Your task to perform on an android device: make emails show in primary in the gmail app Image 0: 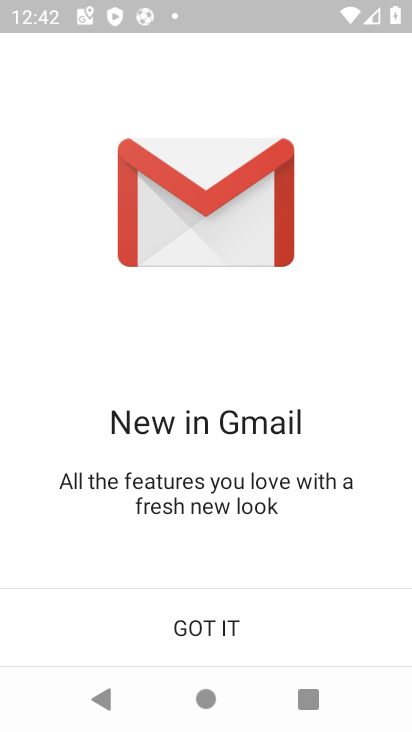
Step 0: press home button
Your task to perform on an android device: make emails show in primary in the gmail app Image 1: 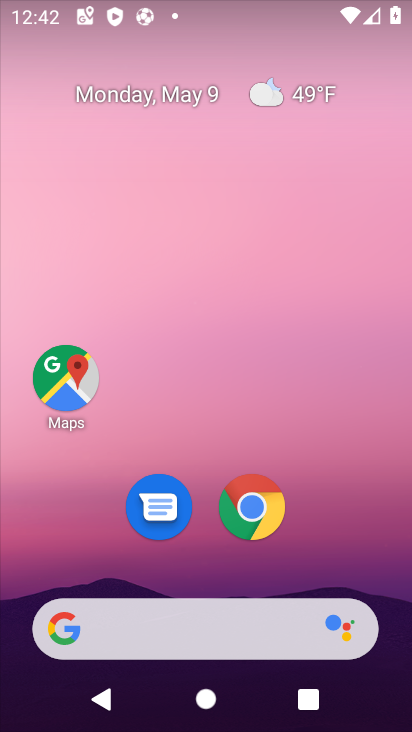
Step 1: drag from (170, 596) to (205, 232)
Your task to perform on an android device: make emails show in primary in the gmail app Image 2: 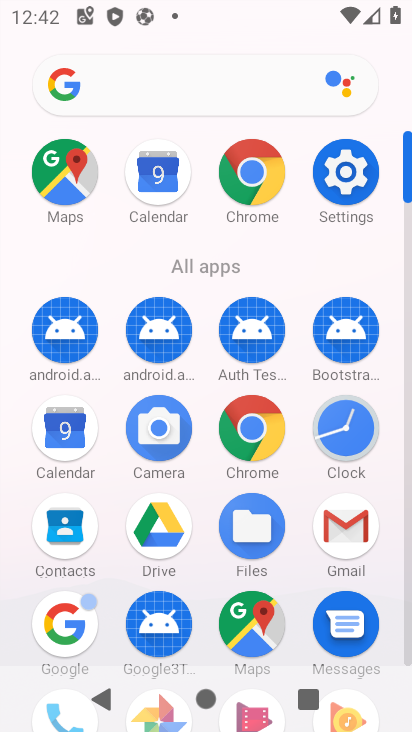
Step 2: click (353, 528)
Your task to perform on an android device: make emails show in primary in the gmail app Image 3: 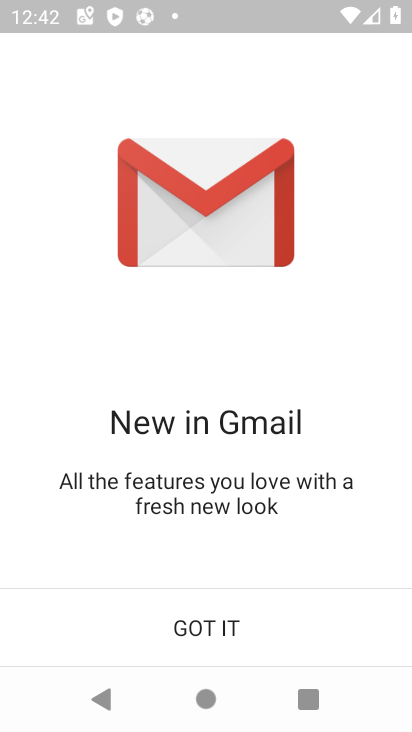
Step 3: click (245, 630)
Your task to perform on an android device: make emails show in primary in the gmail app Image 4: 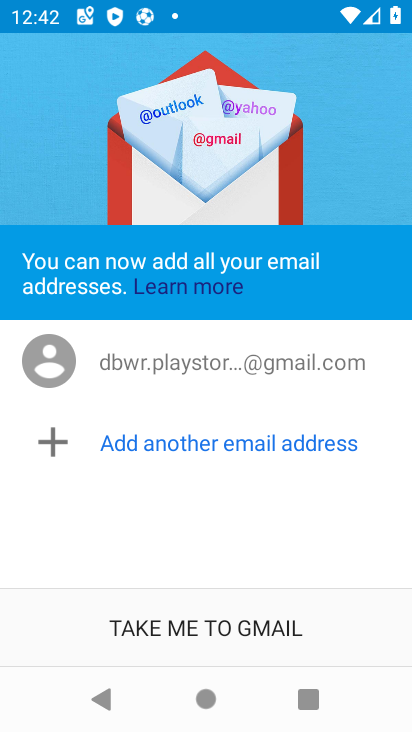
Step 4: click (245, 630)
Your task to perform on an android device: make emails show in primary in the gmail app Image 5: 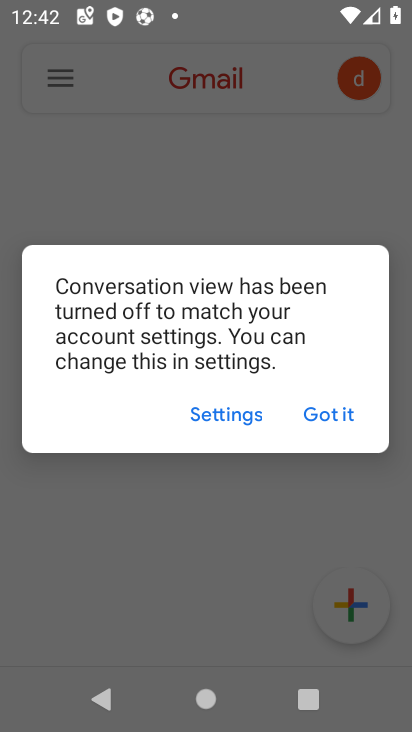
Step 5: click (337, 416)
Your task to perform on an android device: make emails show in primary in the gmail app Image 6: 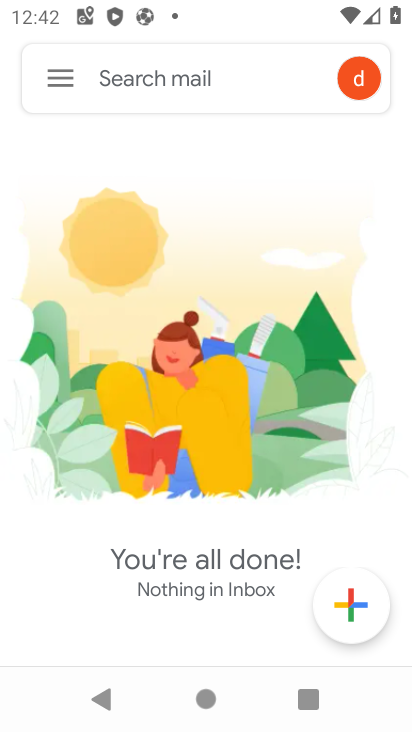
Step 6: click (50, 81)
Your task to perform on an android device: make emails show in primary in the gmail app Image 7: 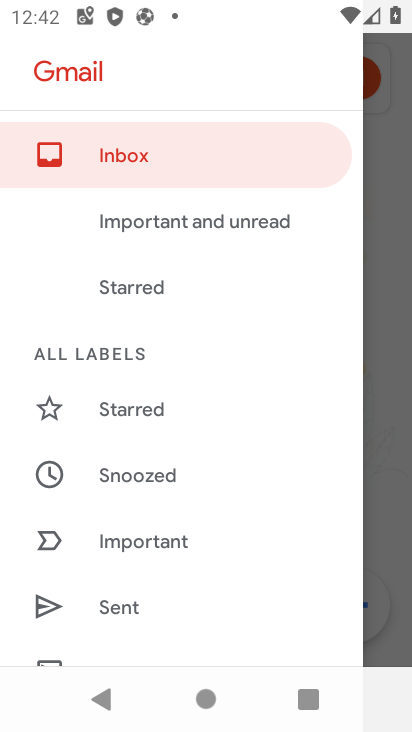
Step 7: drag from (145, 612) to (176, 265)
Your task to perform on an android device: make emails show in primary in the gmail app Image 8: 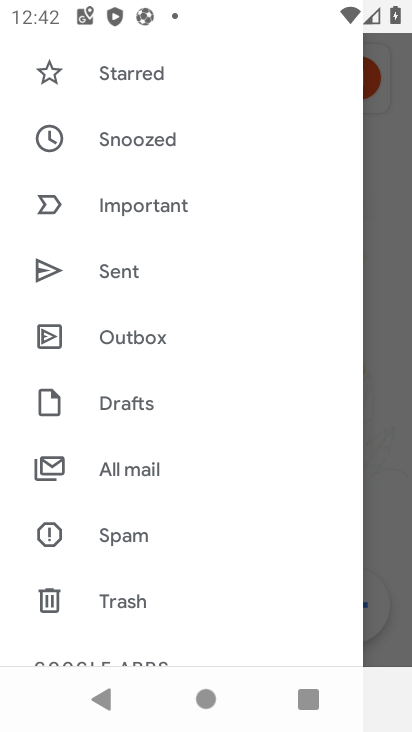
Step 8: drag from (136, 652) to (143, 314)
Your task to perform on an android device: make emails show in primary in the gmail app Image 9: 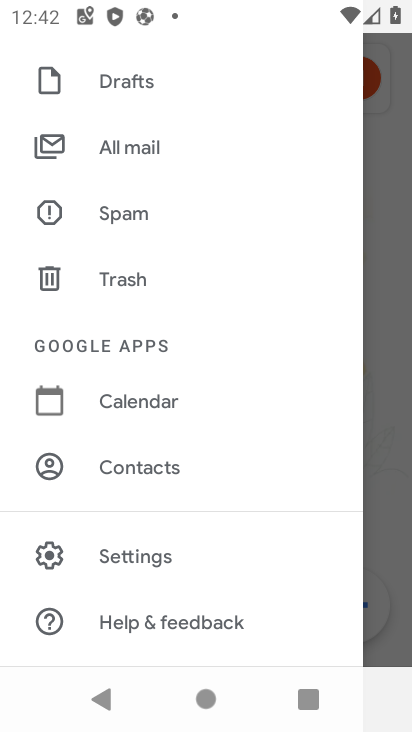
Step 9: click (143, 556)
Your task to perform on an android device: make emails show in primary in the gmail app Image 10: 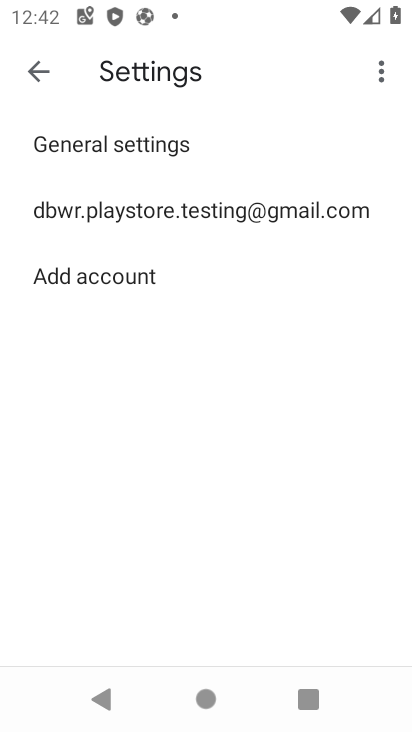
Step 10: click (113, 214)
Your task to perform on an android device: make emails show in primary in the gmail app Image 11: 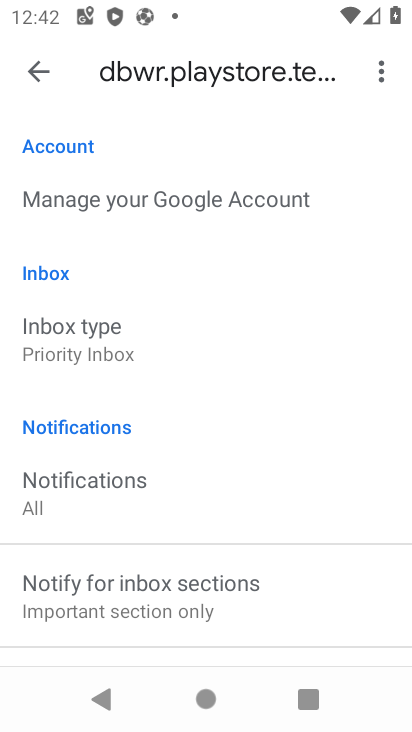
Step 11: click (112, 337)
Your task to perform on an android device: make emails show in primary in the gmail app Image 12: 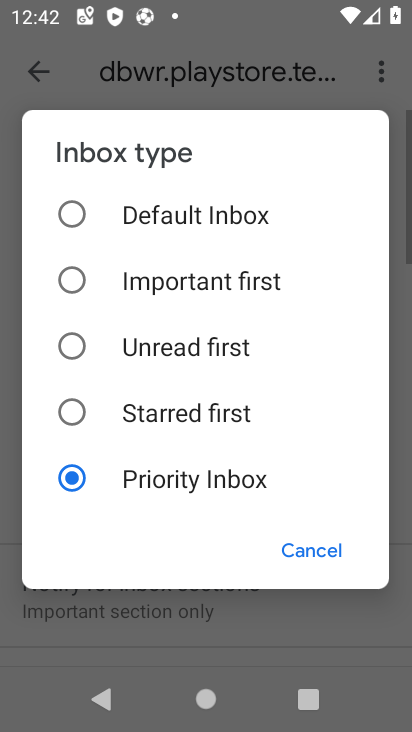
Step 12: click (84, 211)
Your task to perform on an android device: make emails show in primary in the gmail app Image 13: 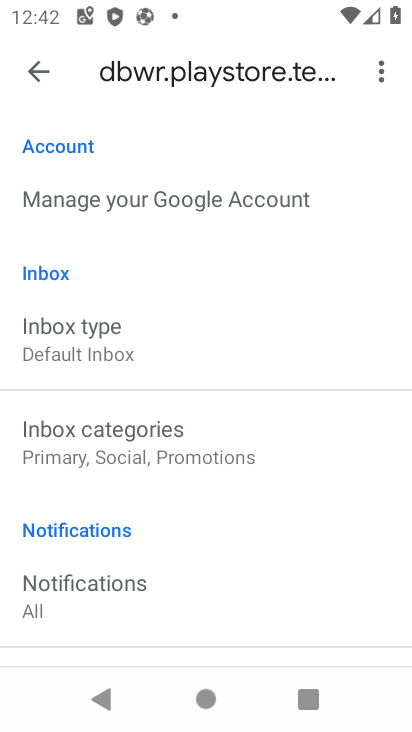
Step 13: click (93, 440)
Your task to perform on an android device: make emails show in primary in the gmail app Image 14: 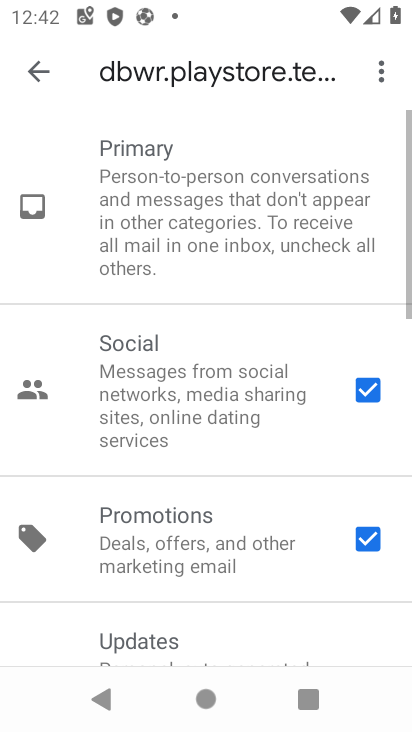
Step 14: click (364, 392)
Your task to perform on an android device: make emails show in primary in the gmail app Image 15: 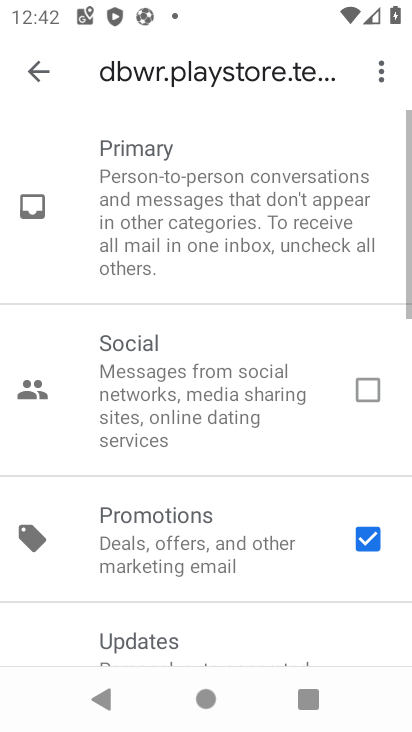
Step 15: click (365, 544)
Your task to perform on an android device: make emails show in primary in the gmail app Image 16: 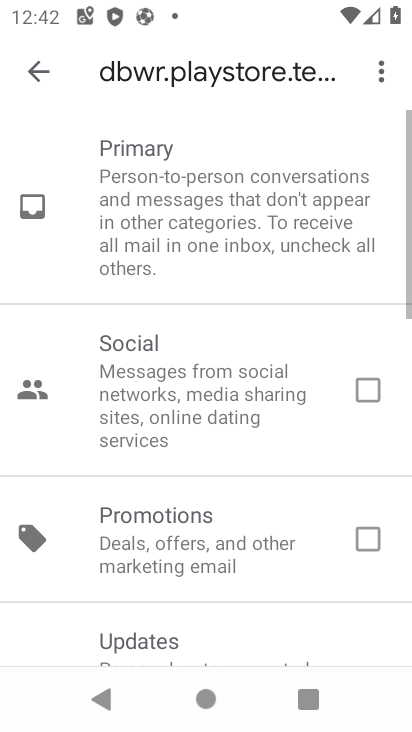
Step 16: click (35, 83)
Your task to perform on an android device: make emails show in primary in the gmail app Image 17: 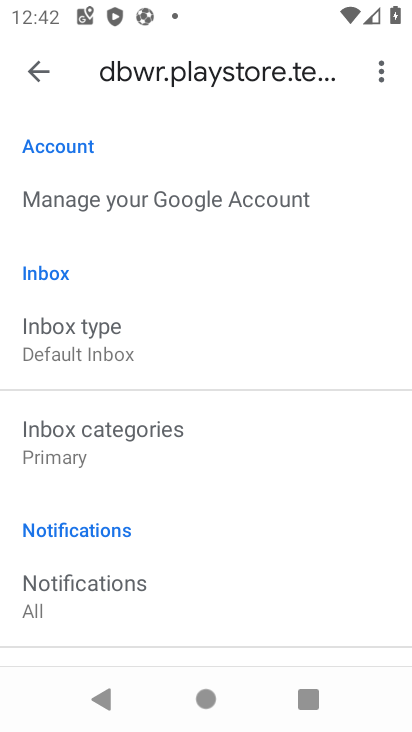
Step 17: task complete